Your task to perform on an android device: add a contact in the contacts app Image 0: 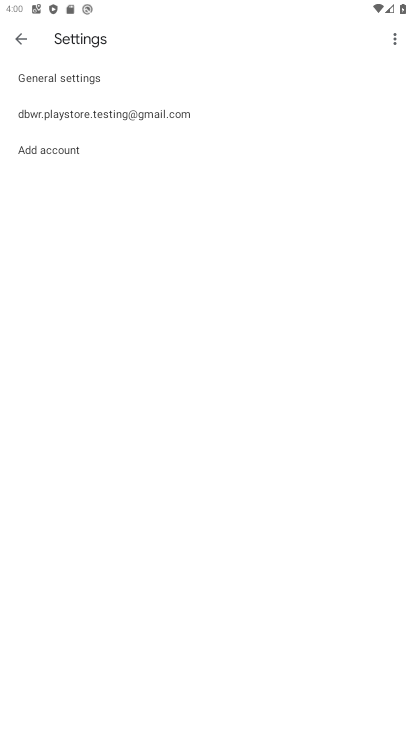
Step 0: press home button
Your task to perform on an android device: add a contact in the contacts app Image 1: 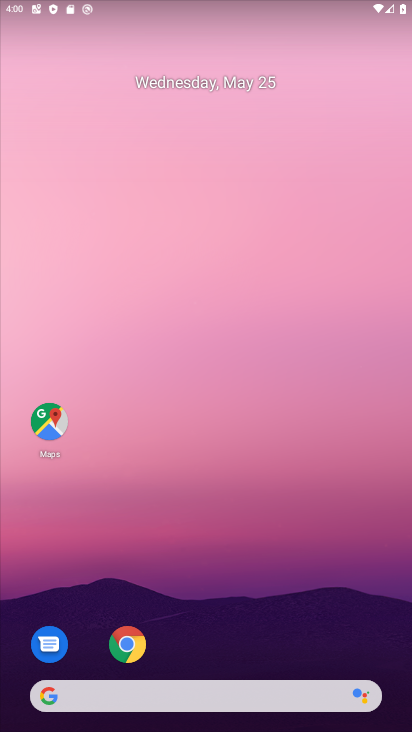
Step 1: drag from (284, 656) to (343, 13)
Your task to perform on an android device: add a contact in the contacts app Image 2: 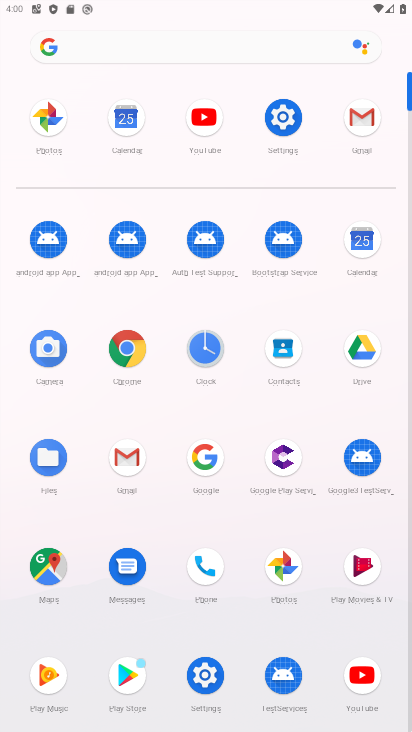
Step 2: click (284, 353)
Your task to perform on an android device: add a contact in the contacts app Image 3: 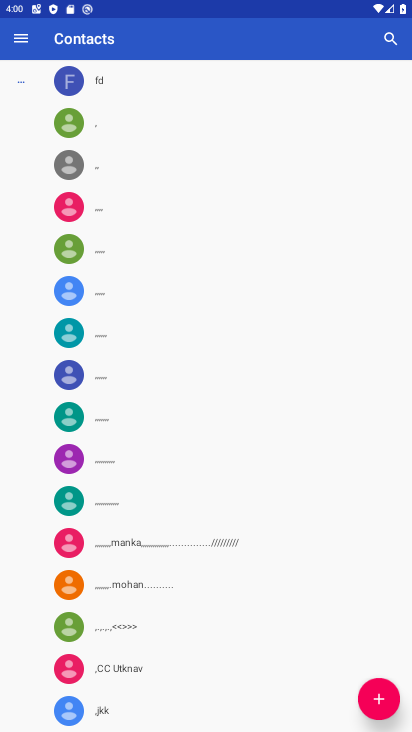
Step 3: click (371, 697)
Your task to perform on an android device: add a contact in the contacts app Image 4: 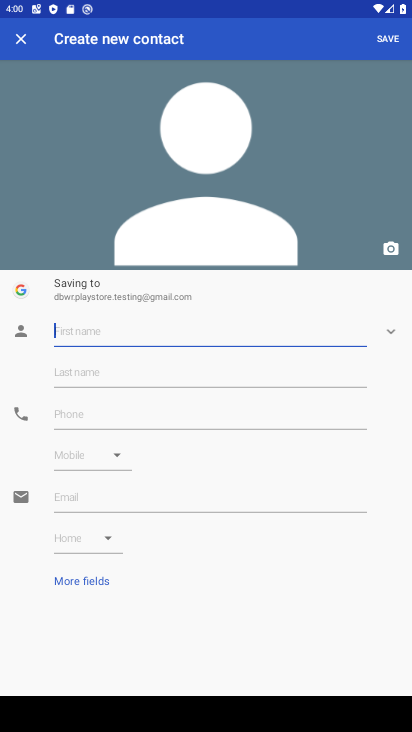
Step 4: type "jerry"
Your task to perform on an android device: add a contact in the contacts app Image 5: 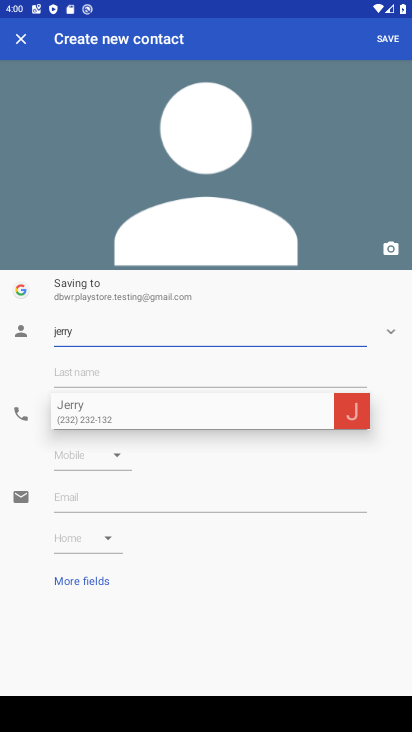
Step 5: click (387, 427)
Your task to perform on an android device: add a contact in the contacts app Image 6: 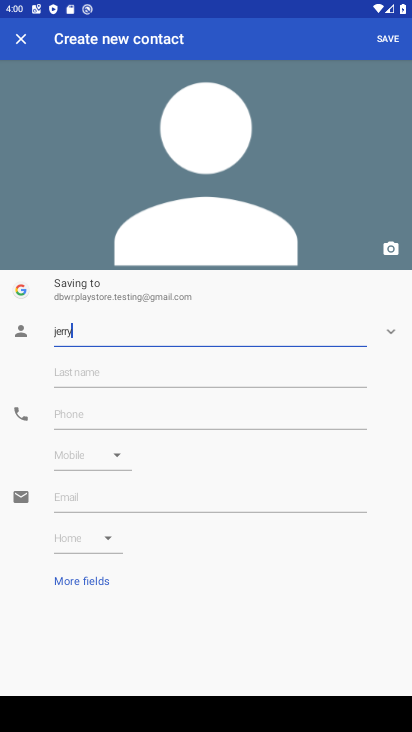
Step 6: click (101, 397)
Your task to perform on an android device: add a contact in the contacts app Image 7: 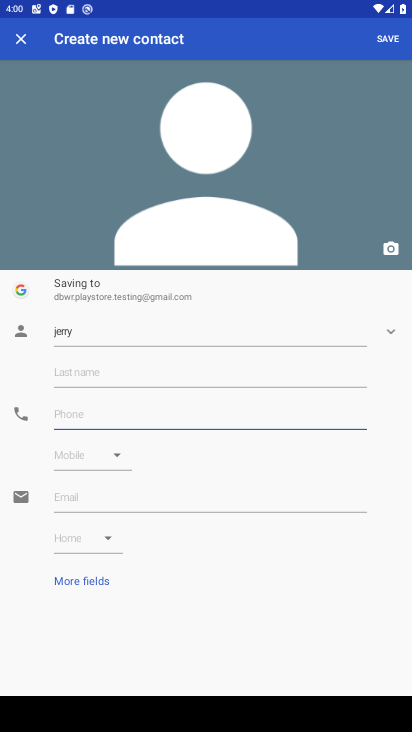
Step 7: type "9877655"
Your task to perform on an android device: add a contact in the contacts app Image 8: 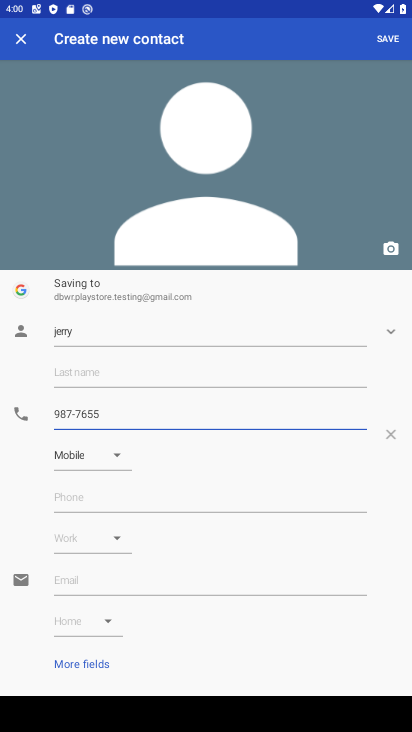
Step 8: click (387, 45)
Your task to perform on an android device: add a contact in the contacts app Image 9: 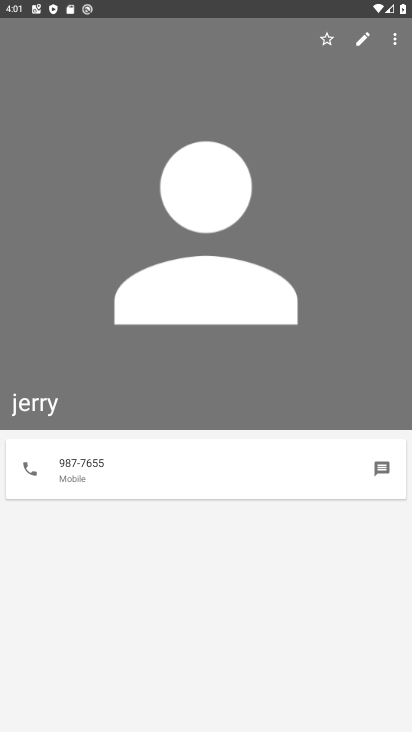
Step 9: task complete